Your task to perform on an android device: Go to Google Image 0: 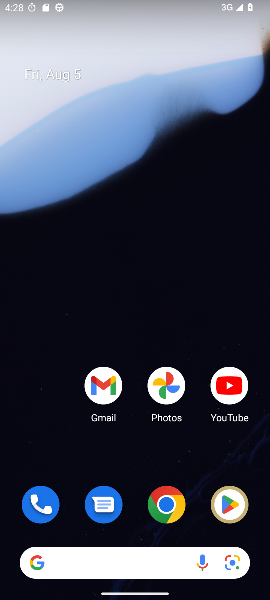
Step 0: click (74, 563)
Your task to perform on an android device: Go to Google Image 1: 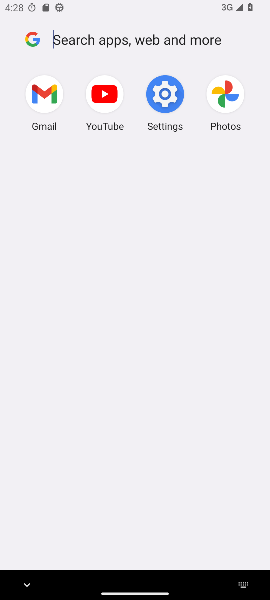
Step 1: task complete